Your task to perform on an android device: move a message to another label in the gmail app Image 0: 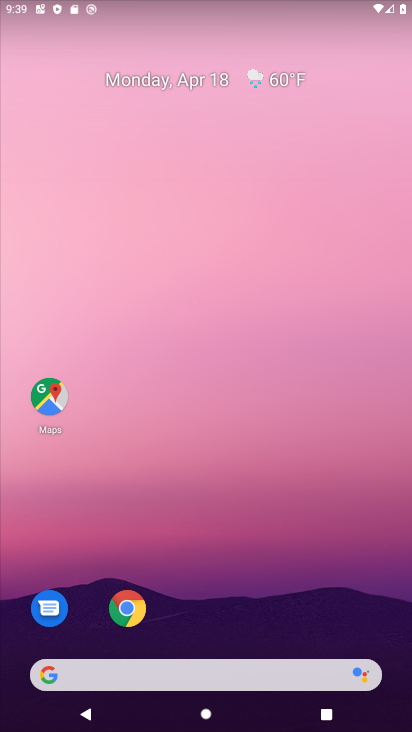
Step 0: click (278, 67)
Your task to perform on an android device: move a message to another label in the gmail app Image 1: 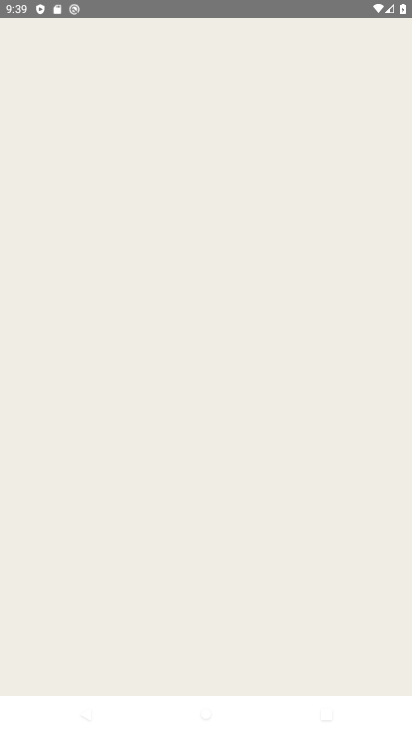
Step 1: drag from (186, 615) to (230, 113)
Your task to perform on an android device: move a message to another label in the gmail app Image 2: 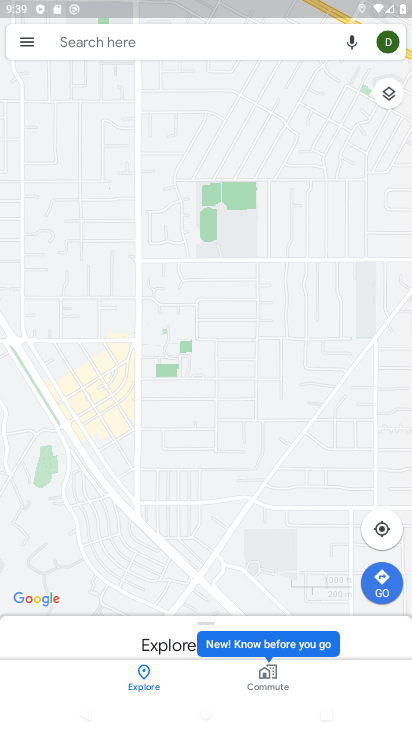
Step 2: press home button
Your task to perform on an android device: move a message to another label in the gmail app Image 3: 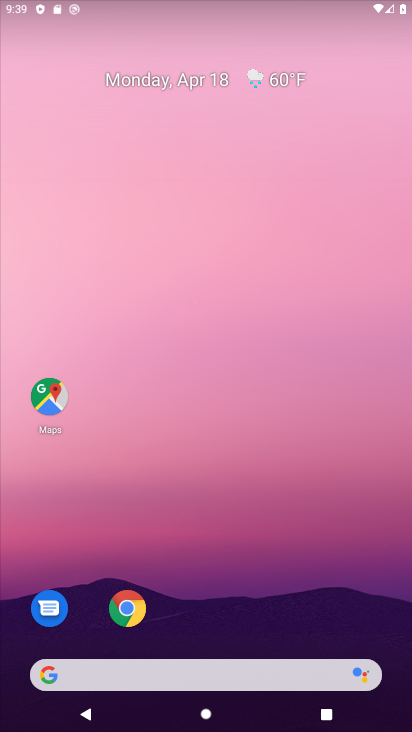
Step 3: drag from (187, 602) to (247, 55)
Your task to perform on an android device: move a message to another label in the gmail app Image 4: 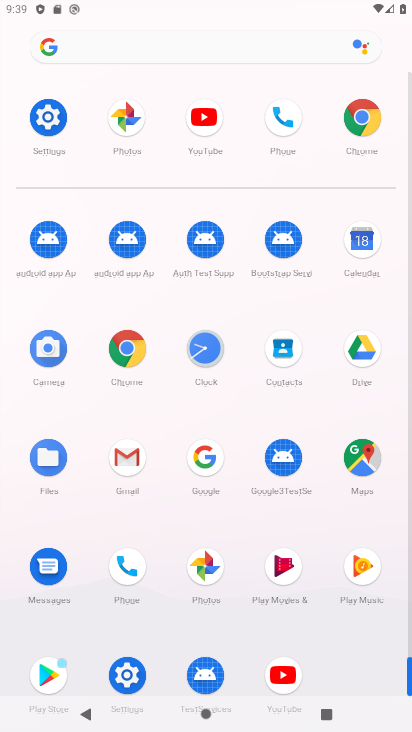
Step 4: click (128, 456)
Your task to perform on an android device: move a message to another label in the gmail app Image 5: 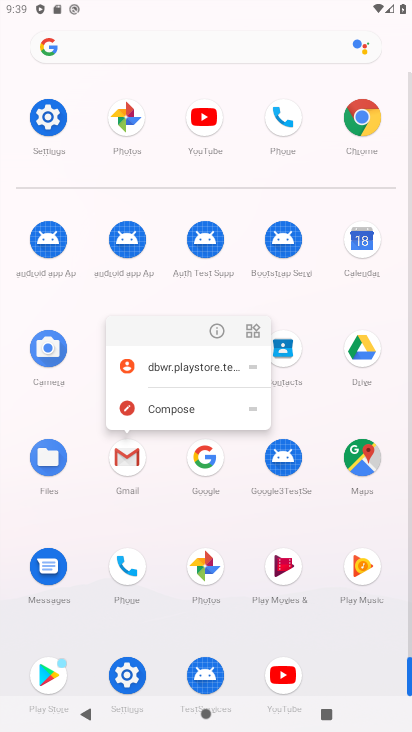
Step 5: click (216, 328)
Your task to perform on an android device: move a message to another label in the gmail app Image 6: 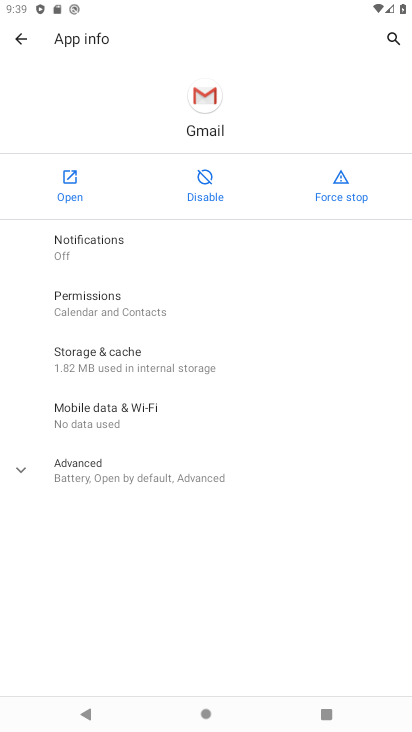
Step 6: click (67, 180)
Your task to perform on an android device: move a message to another label in the gmail app Image 7: 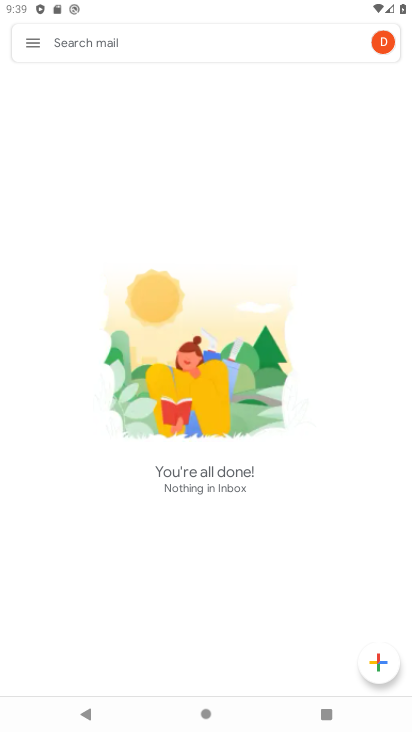
Step 7: click (29, 46)
Your task to perform on an android device: move a message to another label in the gmail app Image 8: 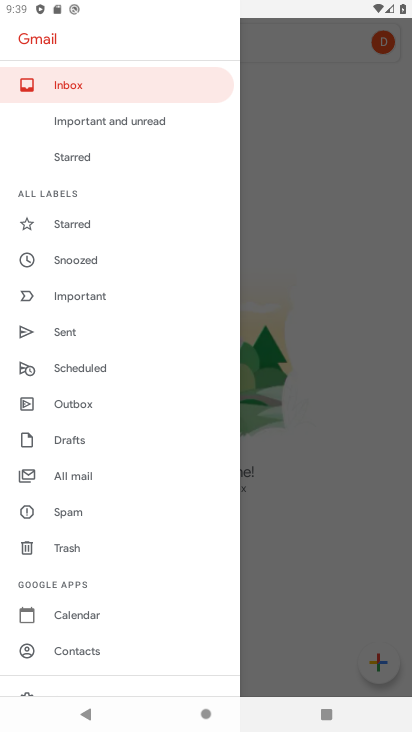
Step 8: task complete